Your task to perform on an android device: toggle priority inbox in the gmail app Image 0: 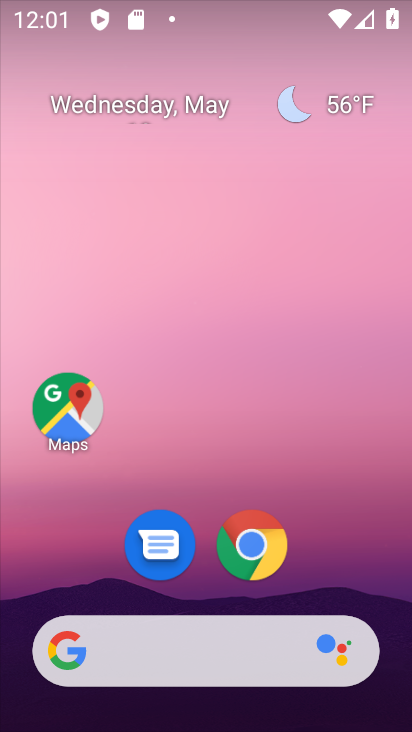
Step 0: press back button
Your task to perform on an android device: toggle priority inbox in the gmail app Image 1: 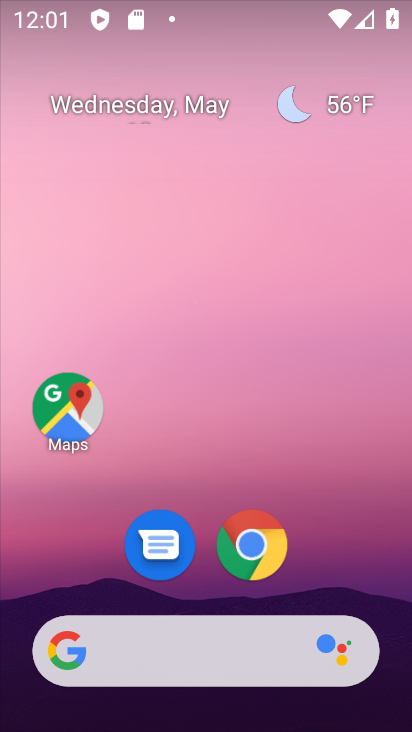
Step 1: drag from (317, 553) to (261, 27)
Your task to perform on an android device: toggle priority inbox in the gmail app Image 2: 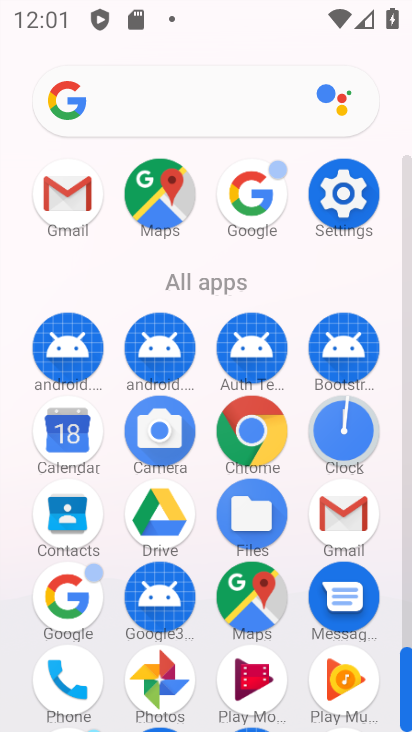
Step 2: click (64, 193)
Your task to perform on an android device: toggle priority inbox in the gmail app Image 3: 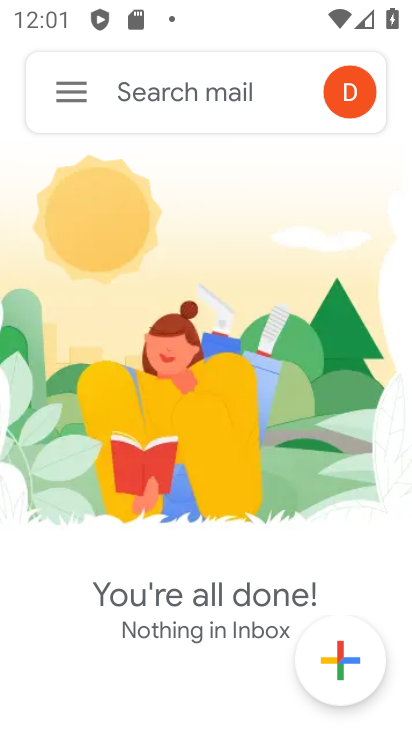
Step 3: click (72, 94)
Your task to perform on an android device: toggle priority inbox in the gmail app Image 4: 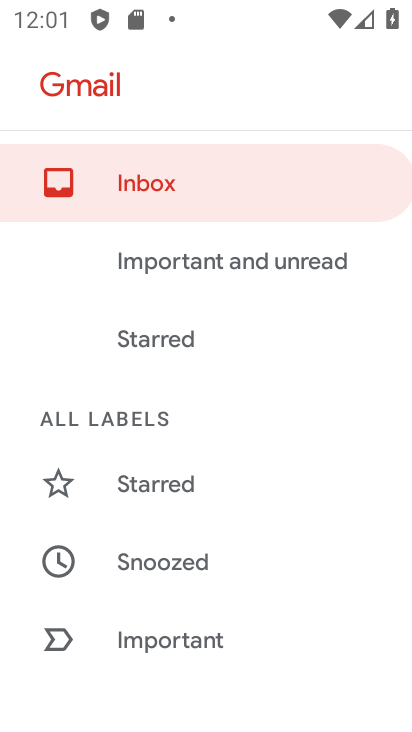
Step 4: drag from (175, 340) to (214, 239)
Your task to perform on an android device: toggle priority inbox in the gmail app Image 5: 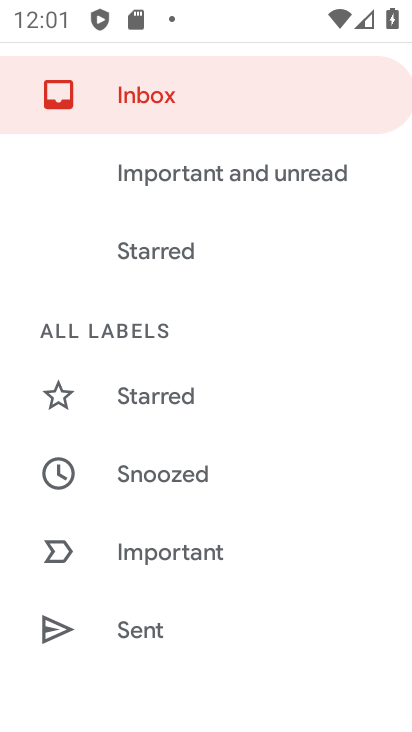
Step 5: drag from (179, 404) to (234, 285)
Your task to perform on an android device: toggle priority inbox in the gmail app Image 6: 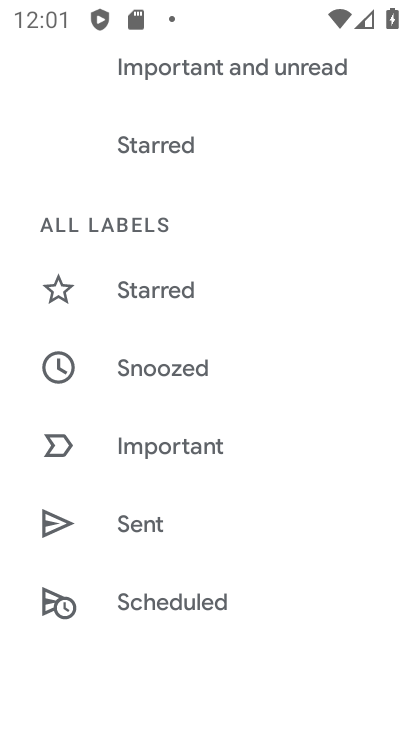
Step 6: drag from (185, 494) to (240, 363)
Your task to perform on an android device: toggle priority inbox in the gmail app Image 7: 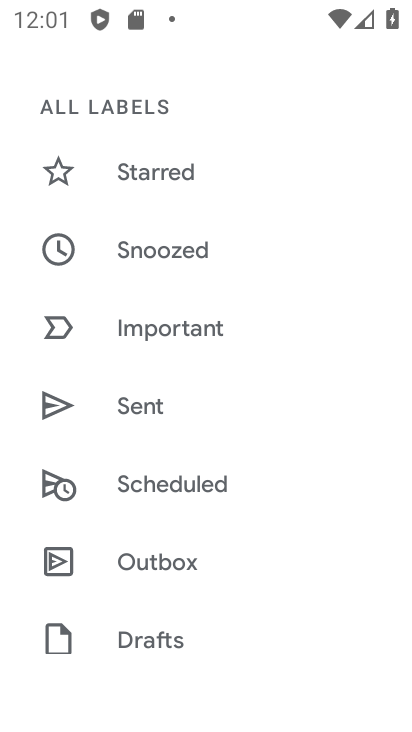
Step 7: drag from (178, 555) to (265, 385)
Your task to perform on an android device: toggle priority inbox in the gmail app Image 8: 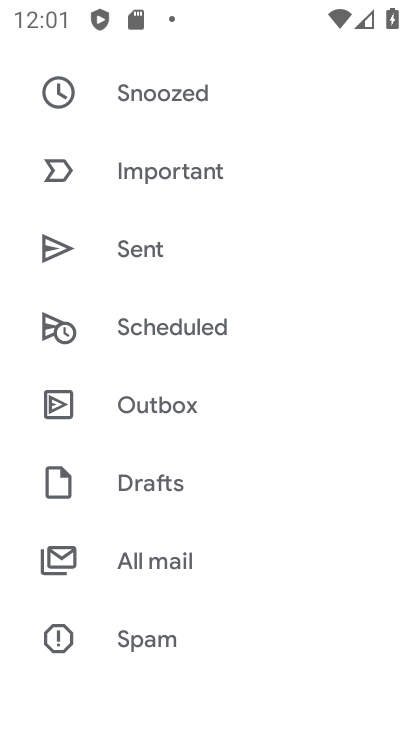
Step 8: drag from (184, 588) to (276, 428)
Your task to perform on an android device: toggle priority inbox in the gmail app Image 9: 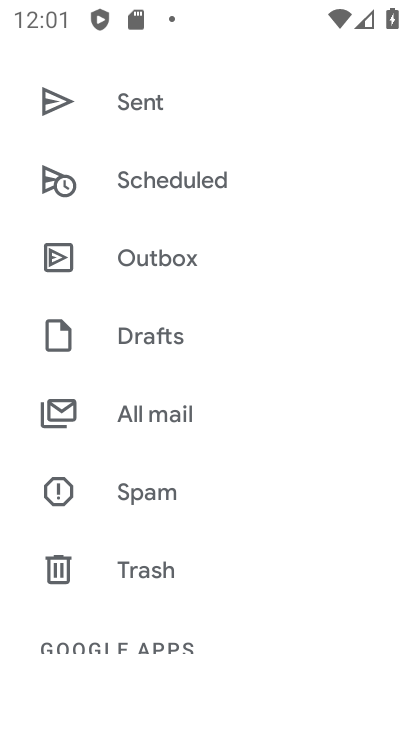
Step 9: drag from (159, 613) to (275, 465)
Your task to perform on an android device: toggle priority inbox in the gmail app Image 10: 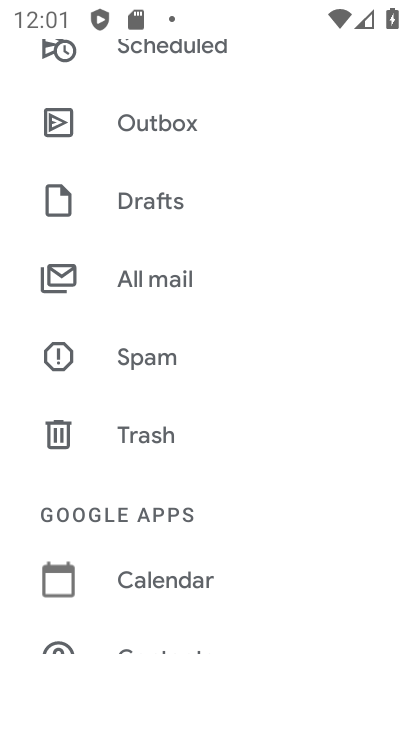
Step 10: drag from (162, 621) to (260, 499)
Your task to perform on an android device: toggle priority inbox in the gmail app Image 11: 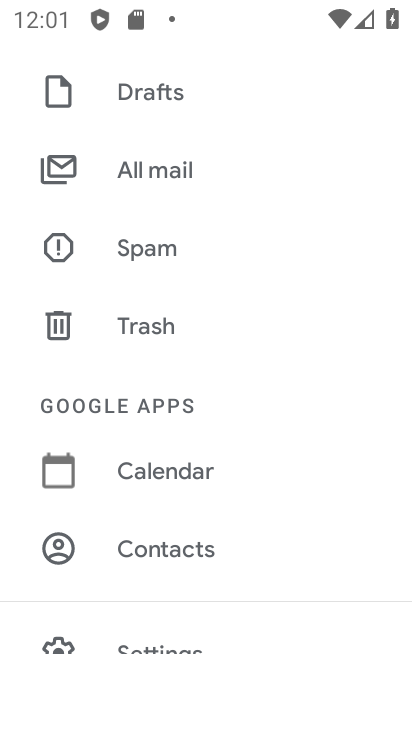
Step 11: drag from (157, 616) to (263, 457)
Your task to perform on an android device: toggle priority inbox in the gmail app Image 12: 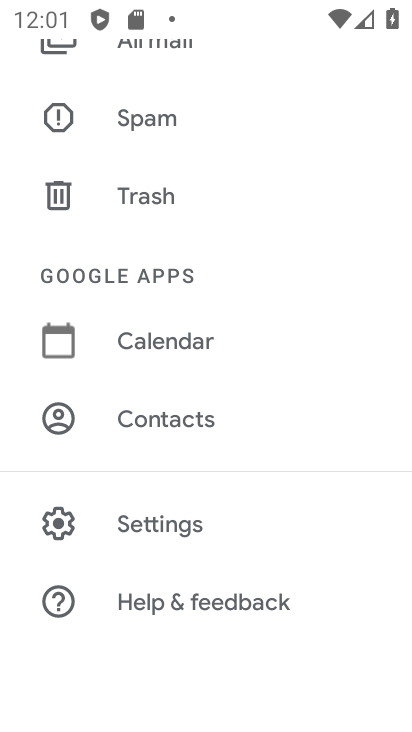
Step 12: click (196, 523)
Your task to perform on an android device: toggle priority inbox in the gmail app Image 13: 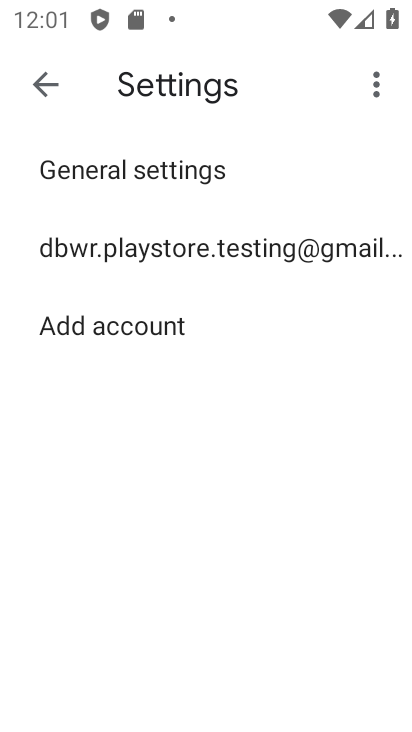
Step 13: click (207, 254)
Your task to perform on an android device: toggle priority inbox in the gmail app Image 14: 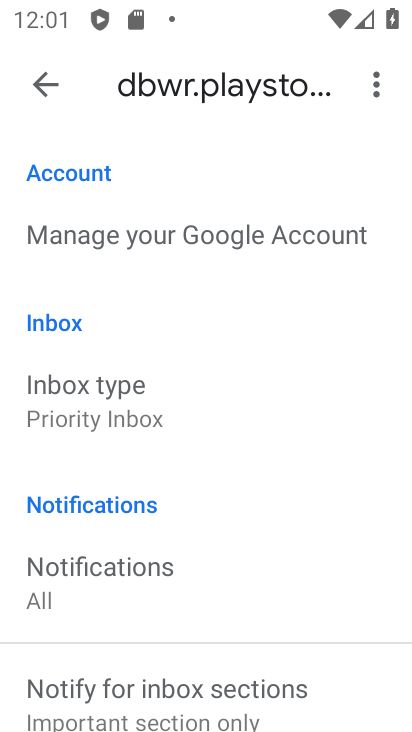
Step 14: click (116, 411)
Your task to perform on an android device: toggle priority inbox in the gmail app Image 15: 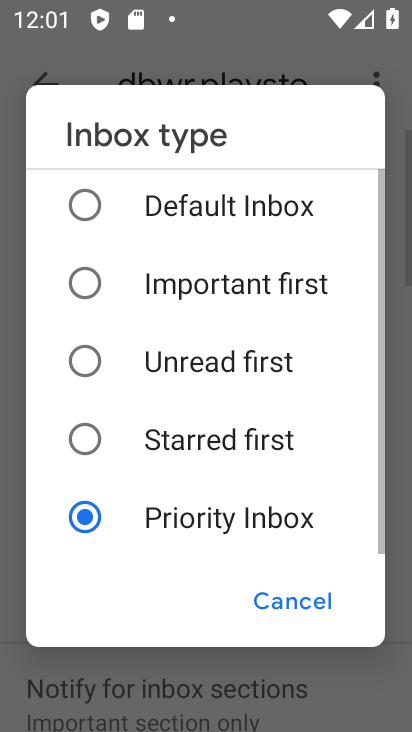
Step 15: click (85, 204)
Your task to perform on an android device: toggle priority inbox in the gmail app Image 16: 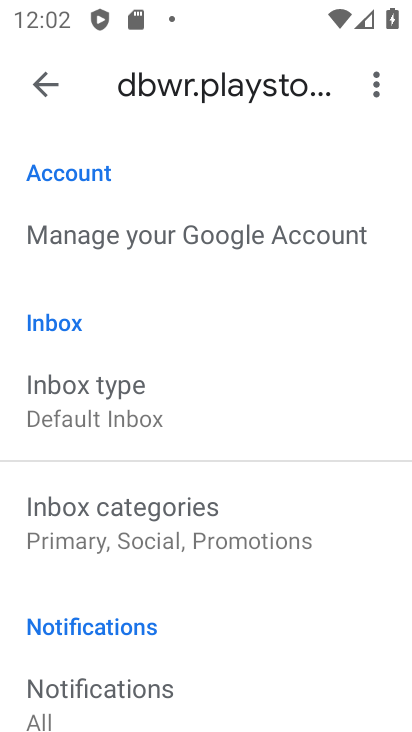
Step 16: task complete